Your task to perform on an android device: install app "Google Calendar" Image 0: 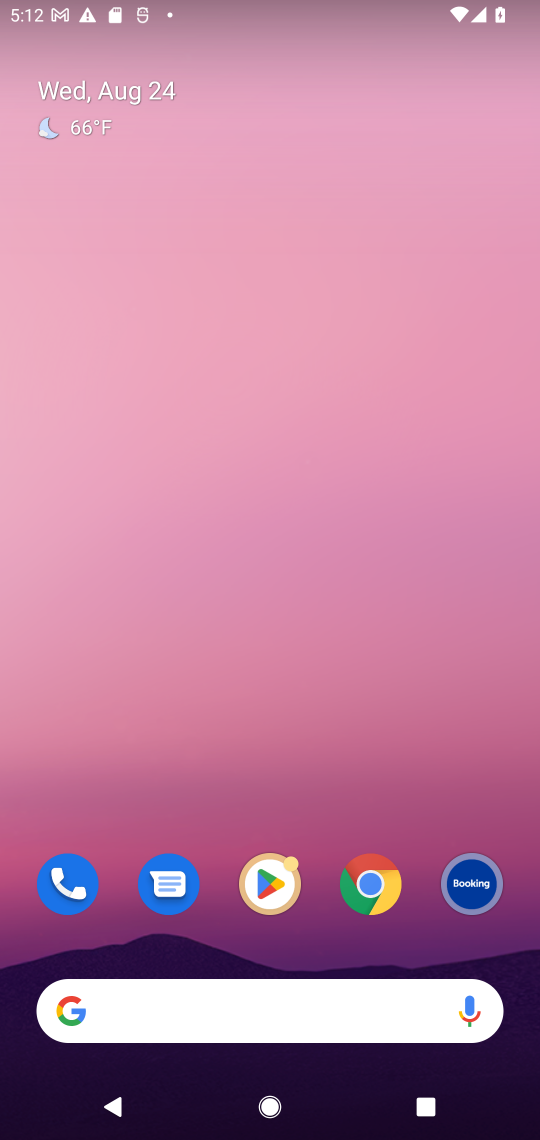
Step 0: click (267, 864)
Your task to perform on an android device: install app "Google Calendar" Image 1: 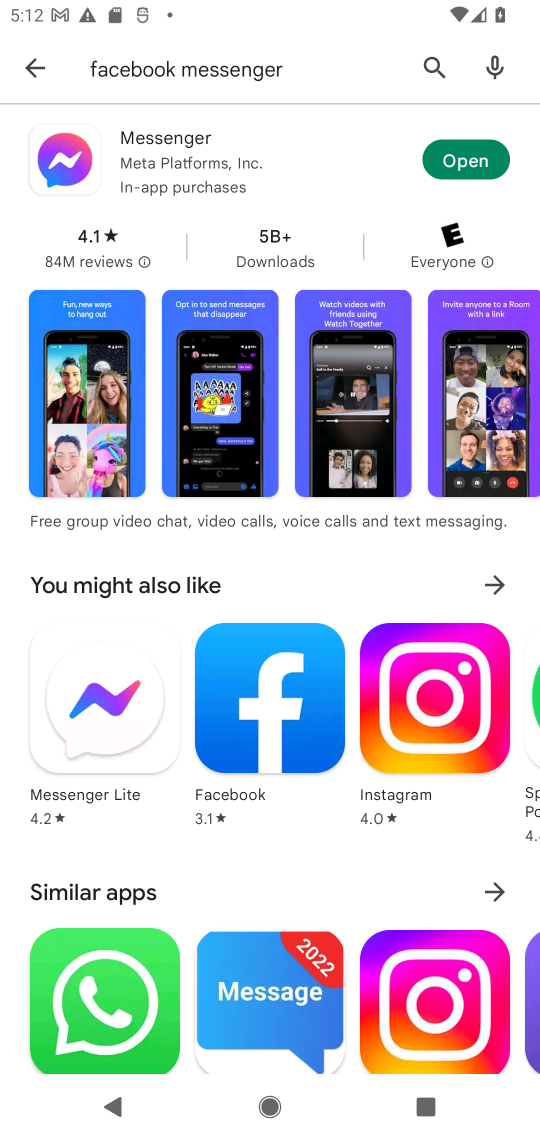
Step 1: click (29, 64)
Your task to perform on an android device: install app "Google Calendar" Image 2: 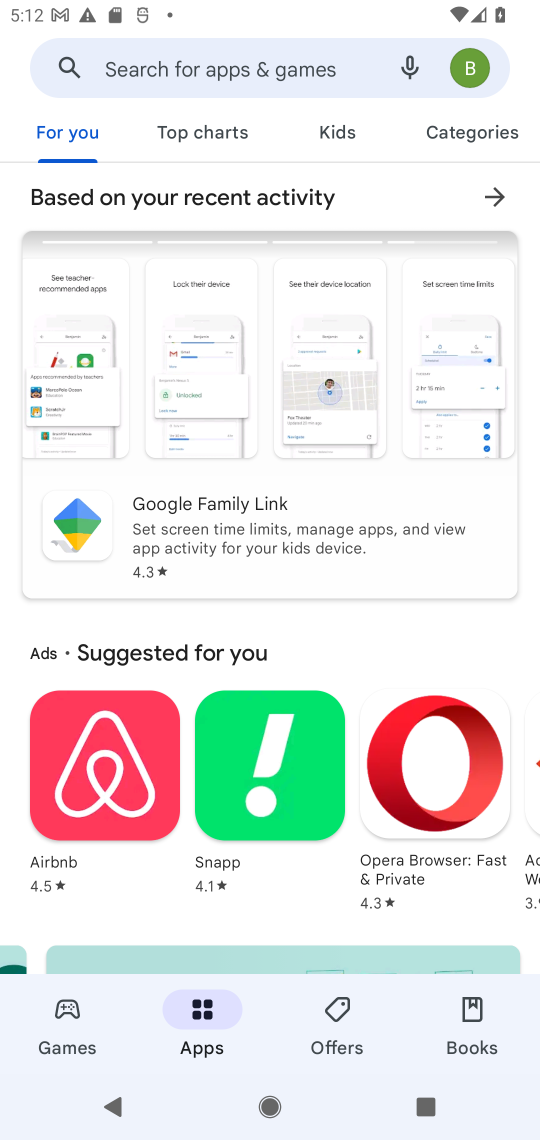
Step 2: click (263, 64)
Your task to perform on an android device: install app "Google Calendar" Image 3: 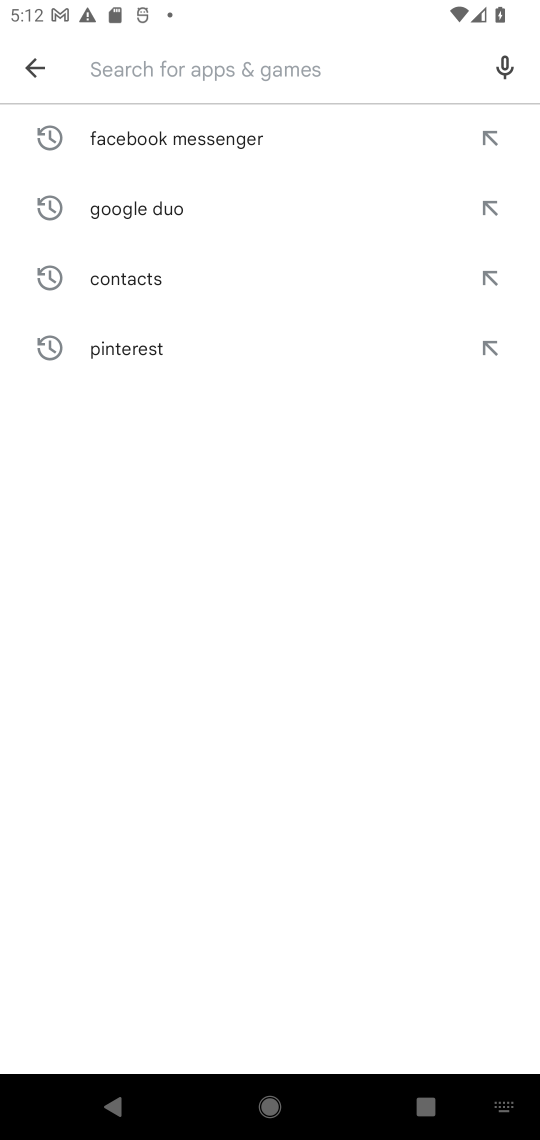
Step 3: type "Google Calendar"
Your task to perform on an android device: install app "Google Calendar" Image 4: 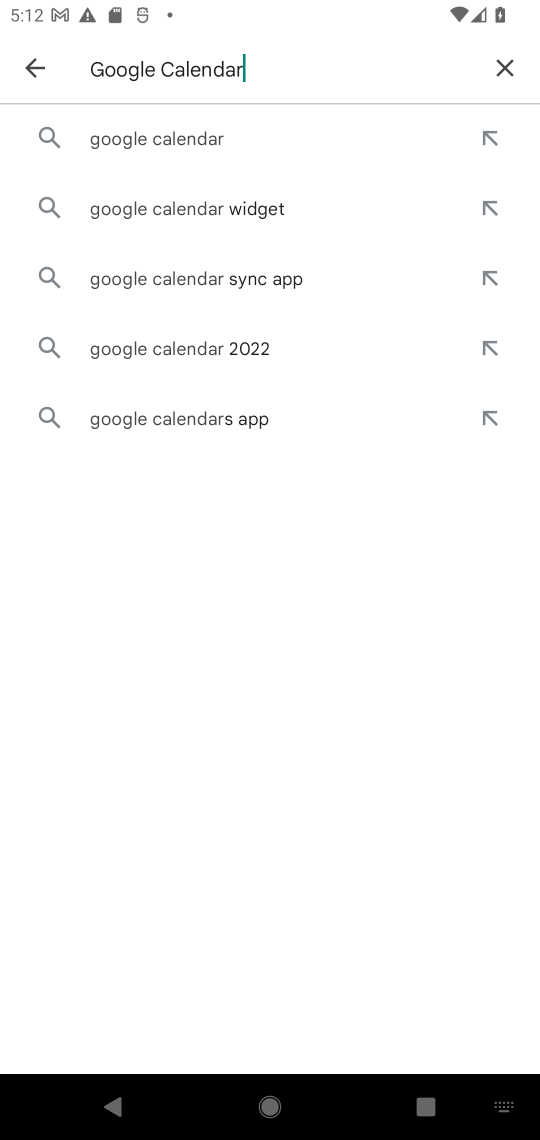
Step 4: click (159, 136)
Your task to perform on an android device: install app "Google Calendar" Image 5: 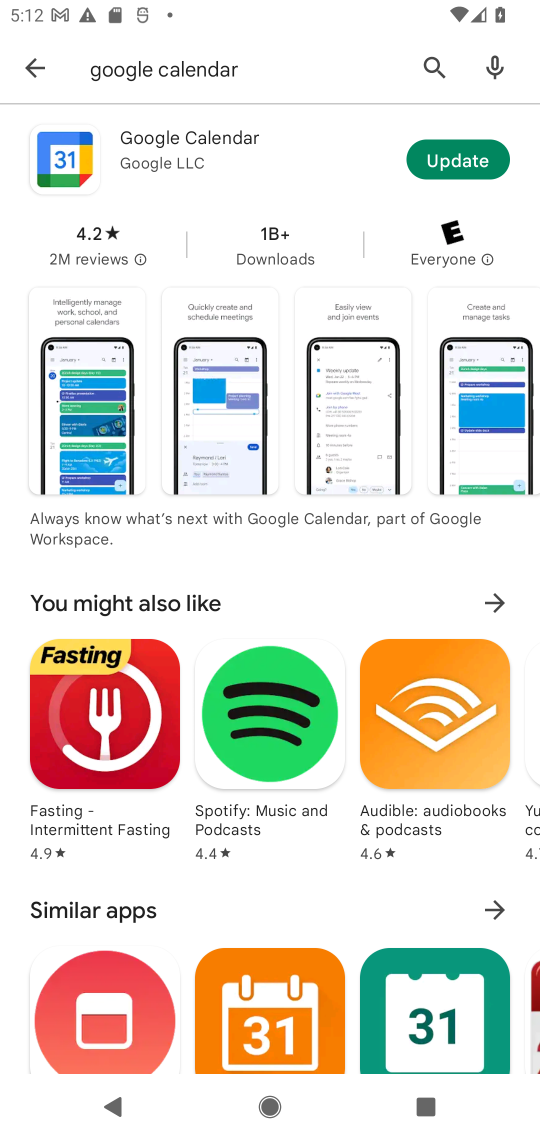
Step 5: click (460, 164)
Your task to perform on an android device: install app "Google Calendar" Image 6: 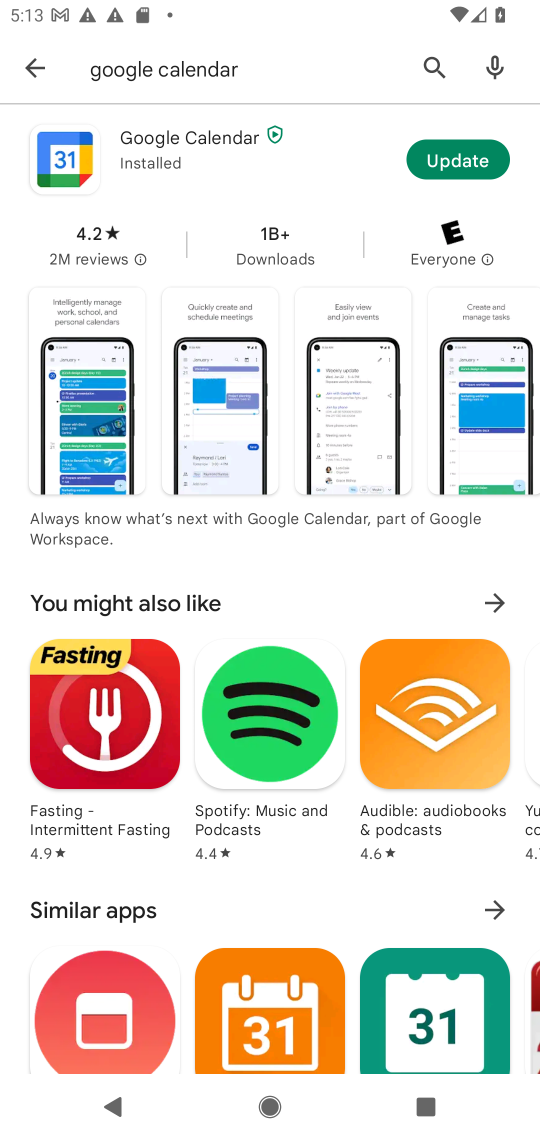
Step 6: click (460, 164)
Your task to perform on an android device: install app "Google Calendar" Image 7: 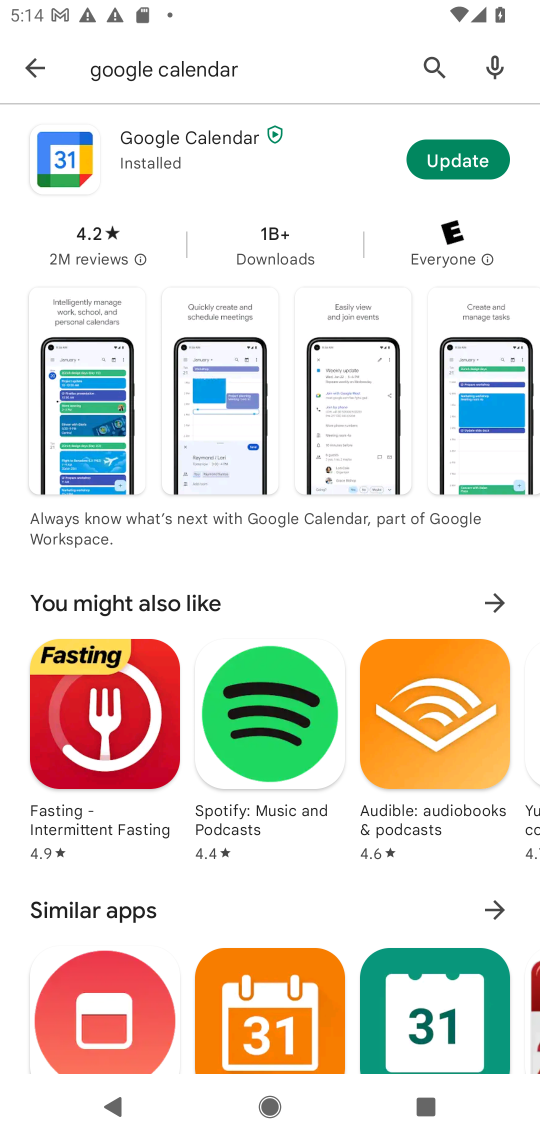
Step 7: task complete